Your task to perform on an android device: Add logitech g502 to the cart on bestbuy.com, then select checkout. Image 0: 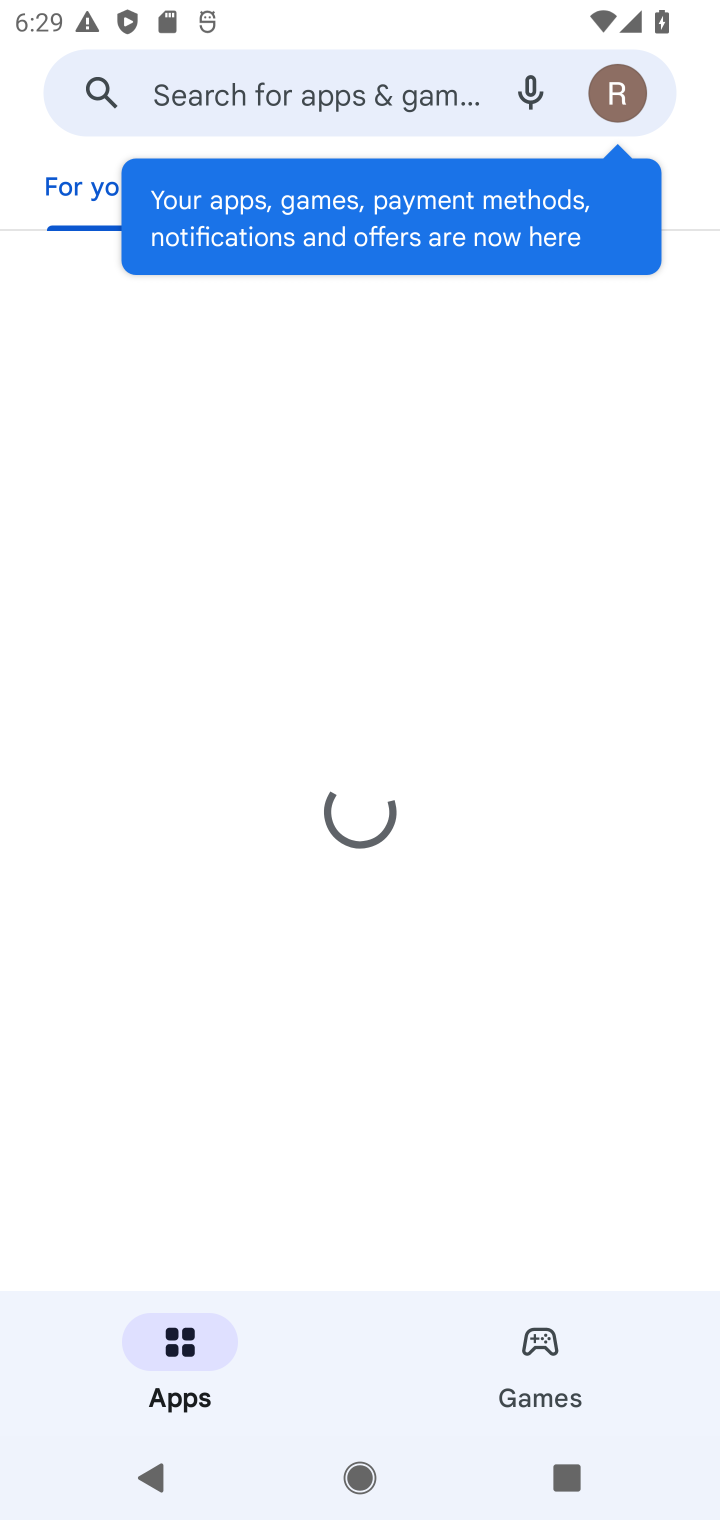
Step 0: press home button
Your task to perform on an android device: Add logitech g502 to the cart on bestbuy.com, then select checkout. Image 1: 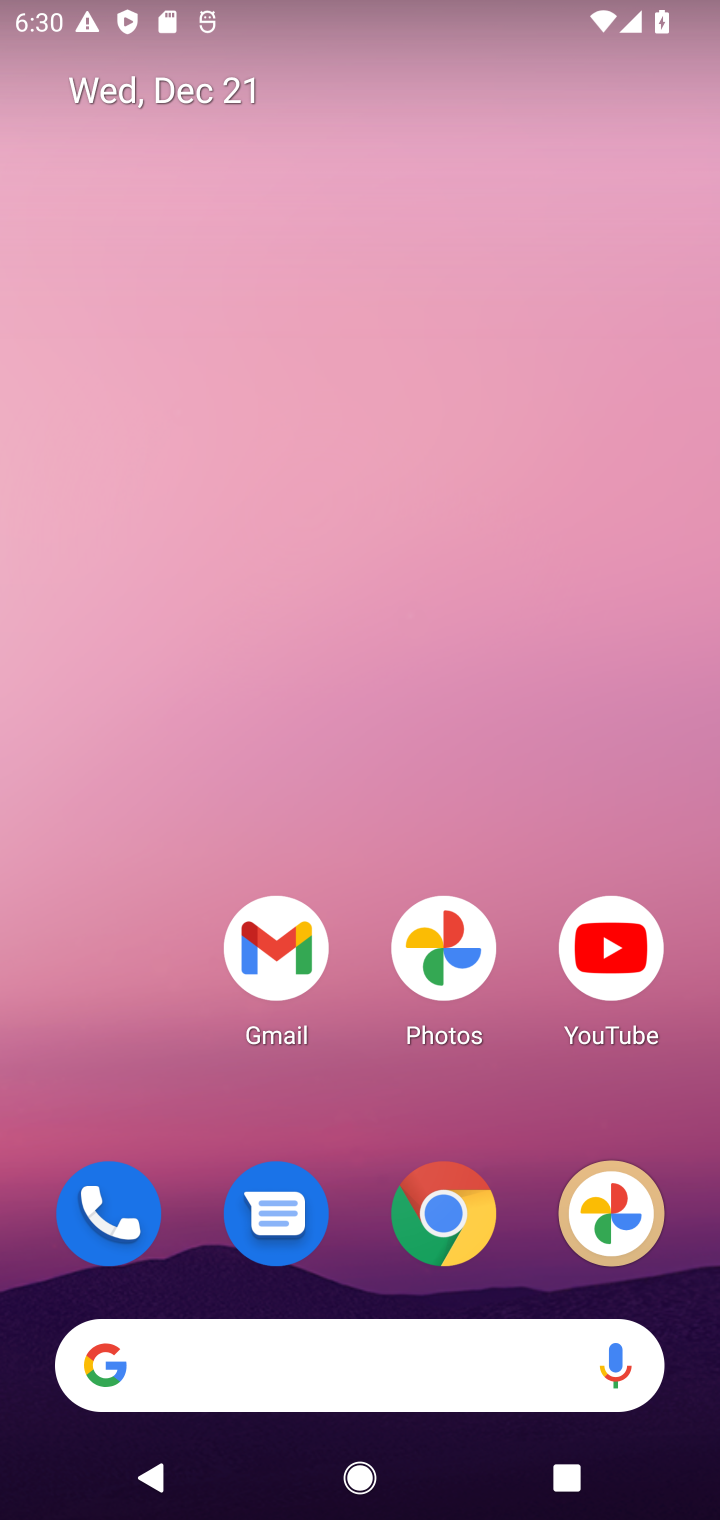
Step 1: click (470, 1252)
Your task to perform on an android device: Add logitech g502 to the cart on bestbuy.com, then select checkout. Image 2: 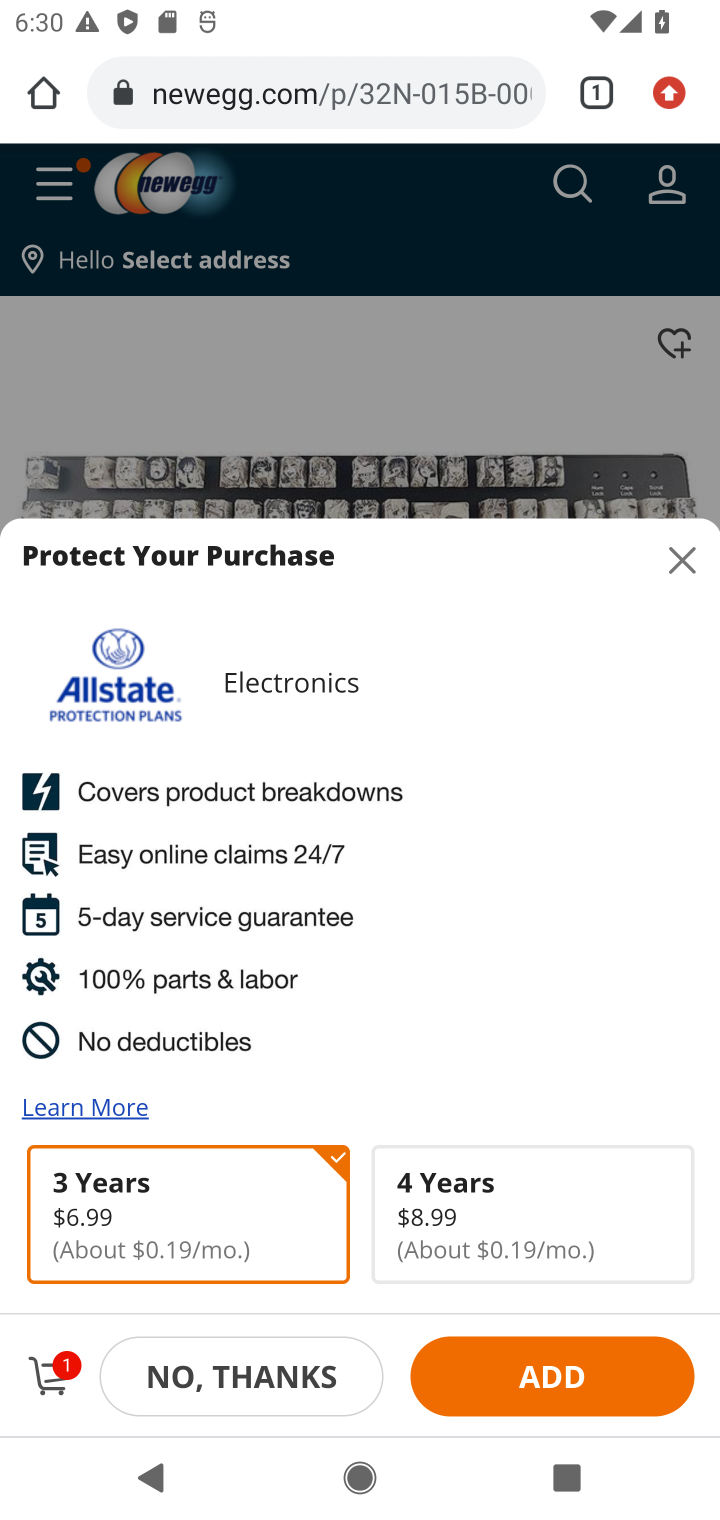
Step 2: click (441, 119)
Your task to perform on an android device: Add logitech g502 to the cart on bestbuy.com, then select checkout. Image 3: 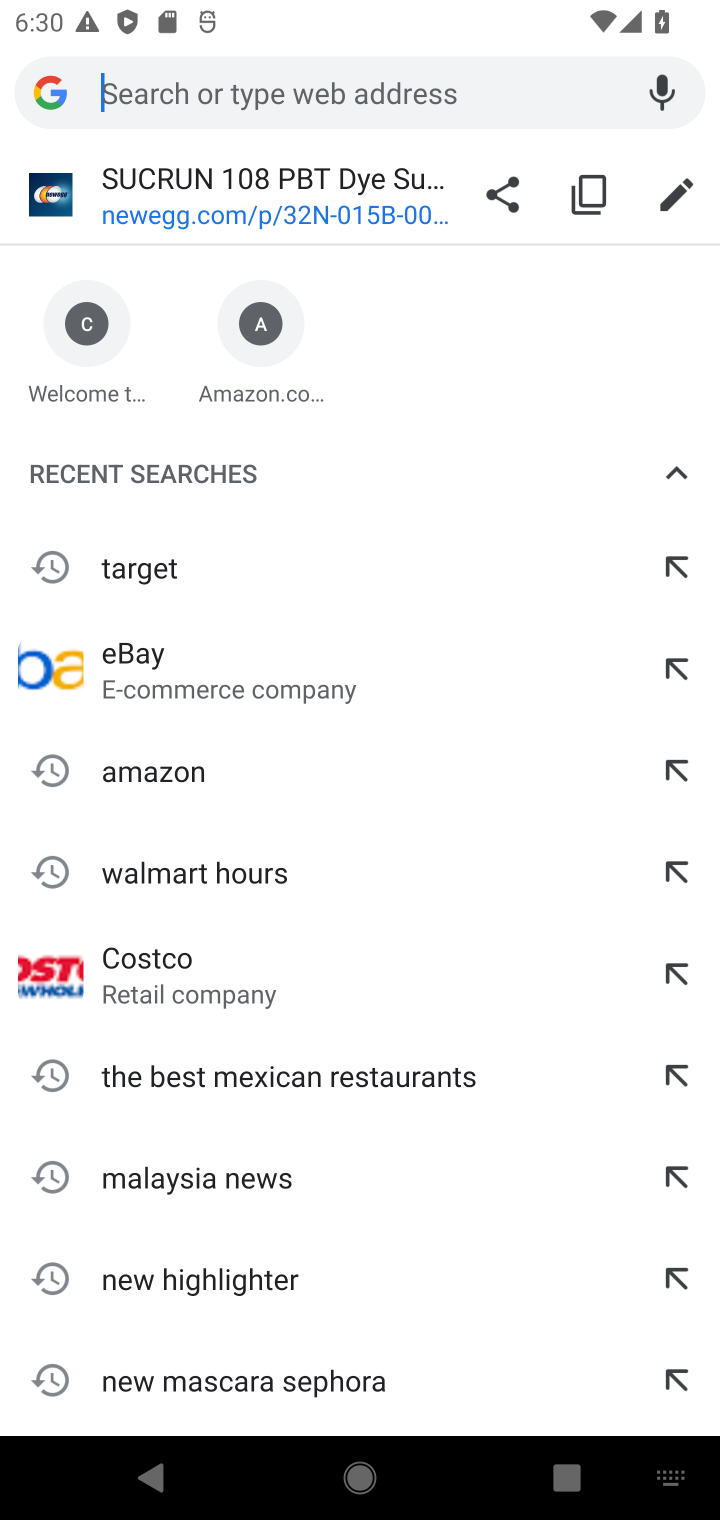
Step 3: type "bestbuy"
Your task to perform on an android device: Add logitech g502 to the cart on bestbuy.com, then select checkout. Image 4: 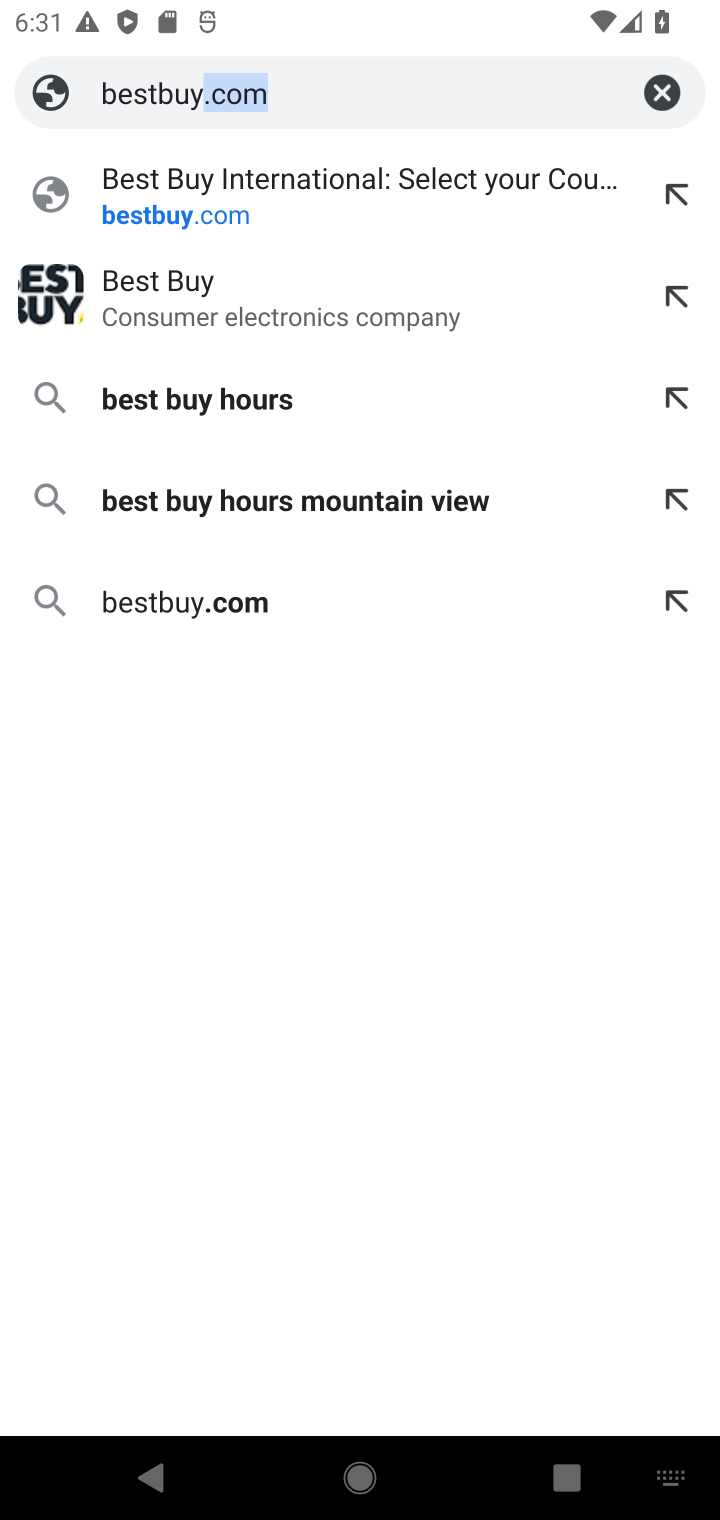
Step 4: click (221, 181)
Your task to perform on an android device: Add logitech g502 to the cart on bestbuy.com, then select checkout. Image 5: 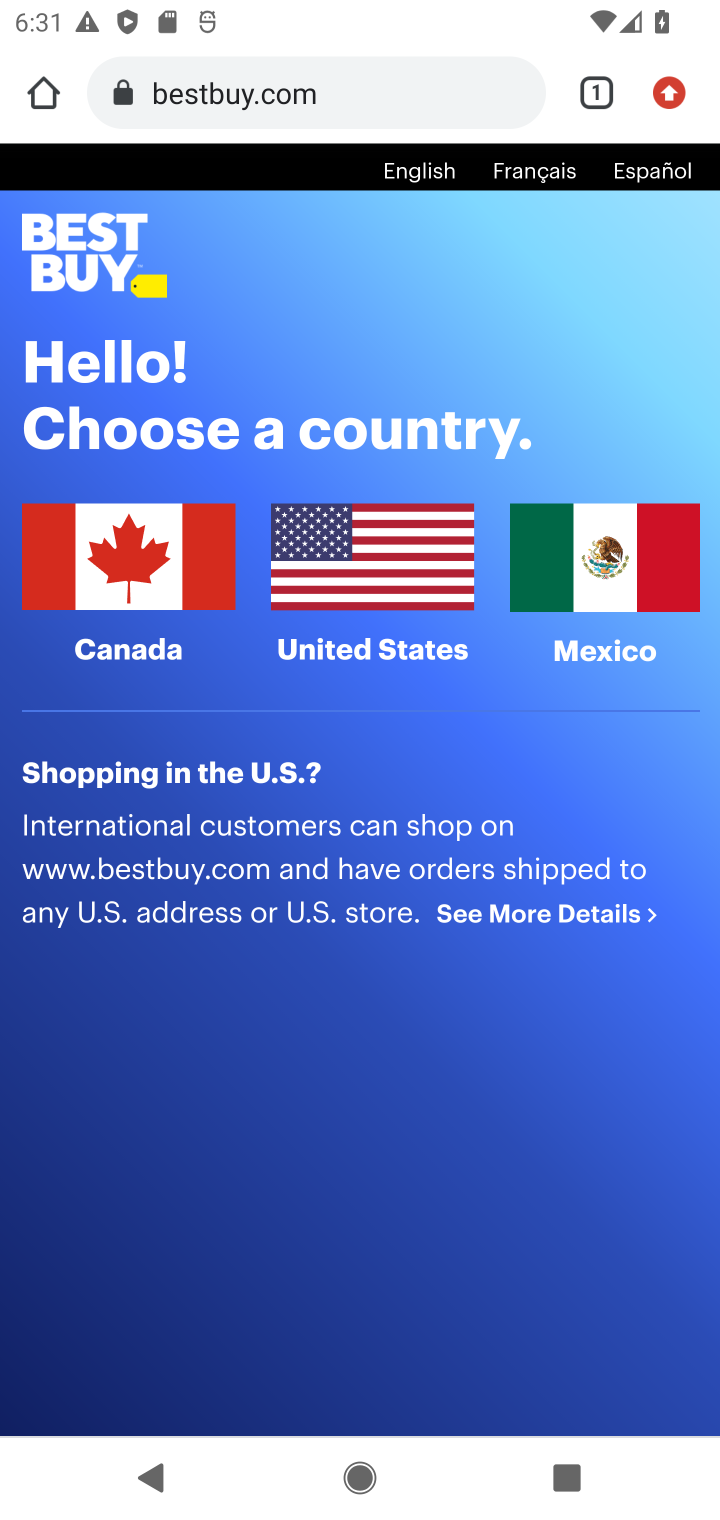
Step 5: click (153, 565)
Your task to perform on an android device: Add logitech g502 to the cart on bestbuy.com, then select checkout. Image 6: 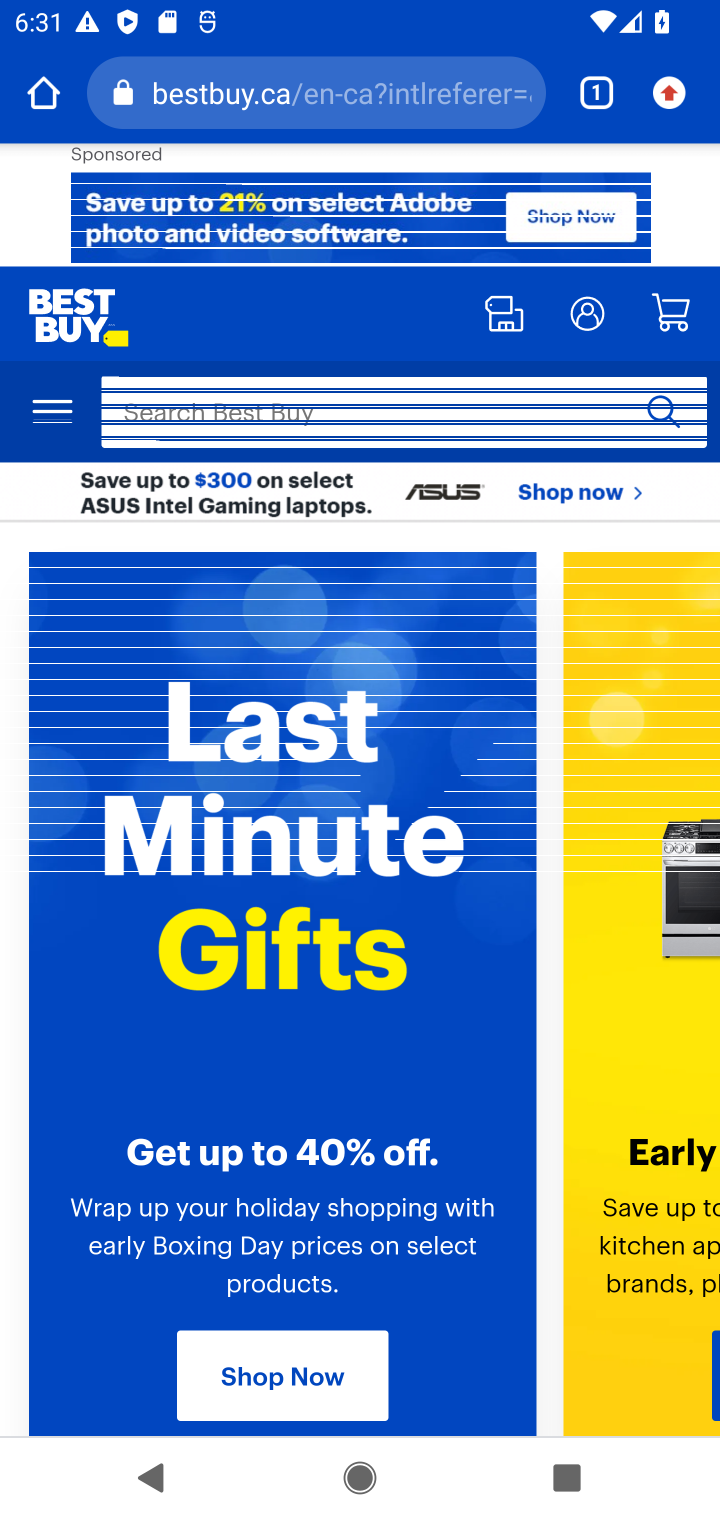
Step 6: click (250, 400)
Your task to perform on an android device: Add logitech g502 to the cart on bestbuy.com, then select checkout. Image 7: 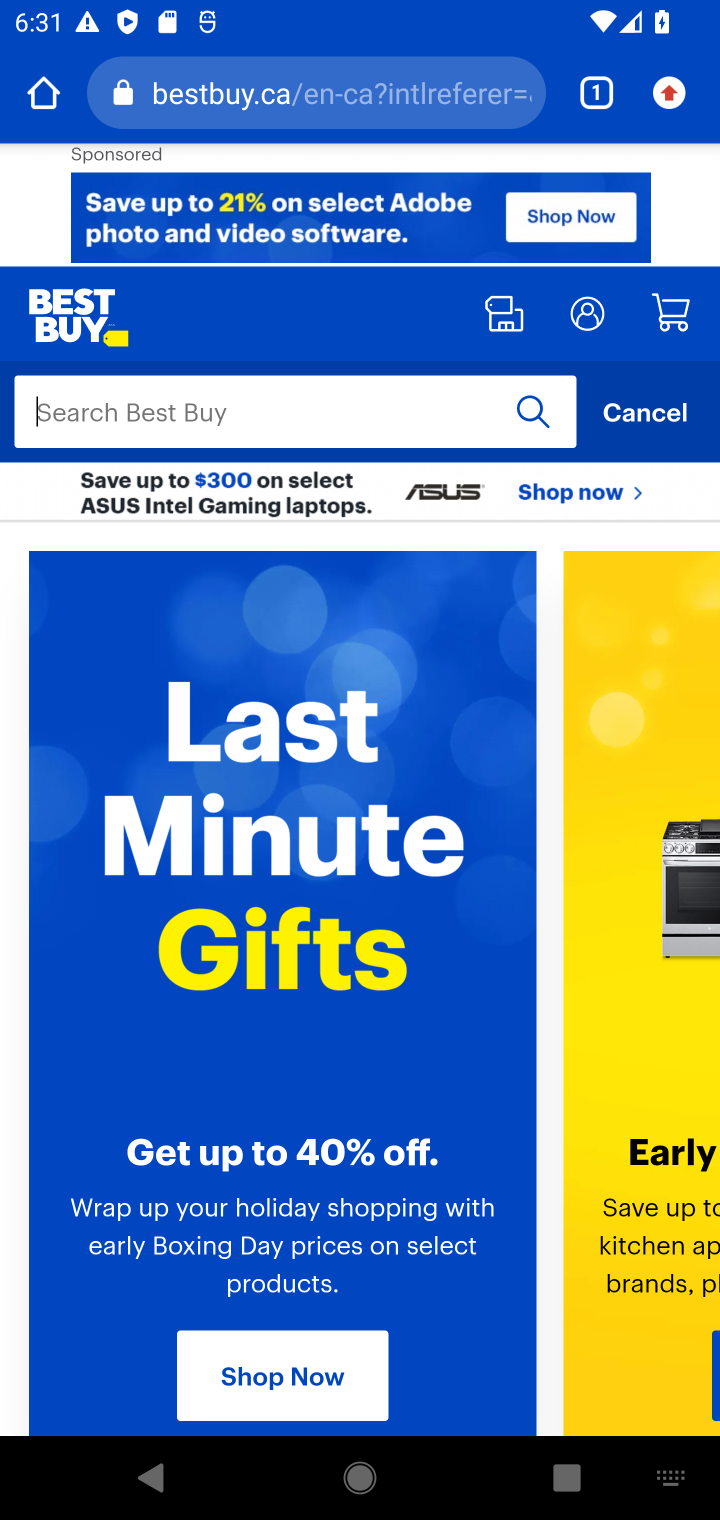
Step 7: type "logitechh g502"
Your task to perform on an android device: Add logitech g502 to the cart on bestbuy.com, then select checkout. Image 8: 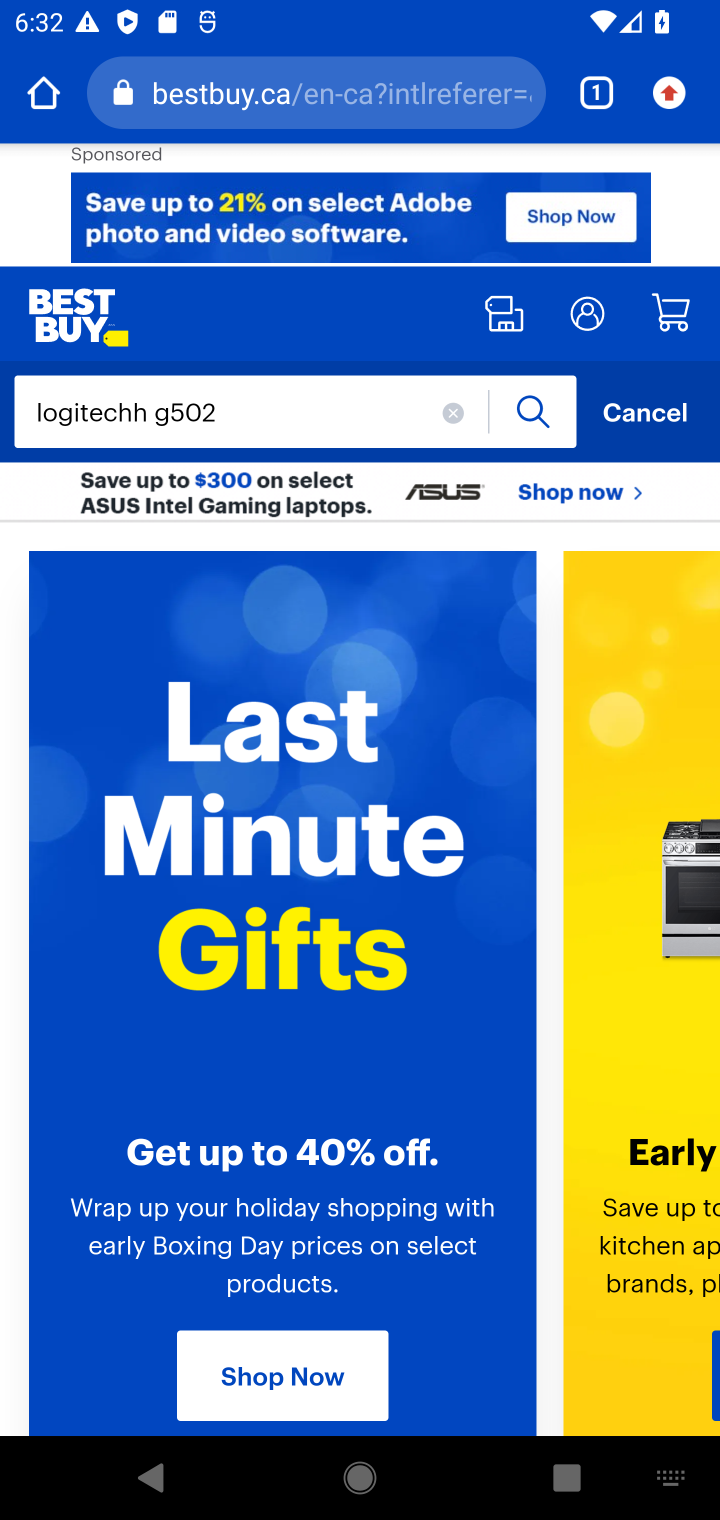
Step 8: click (541, 417)
Your task to perform on an android device: Add logitech g502 to the cart on bestbuy.com, then select checkout. Image 9: 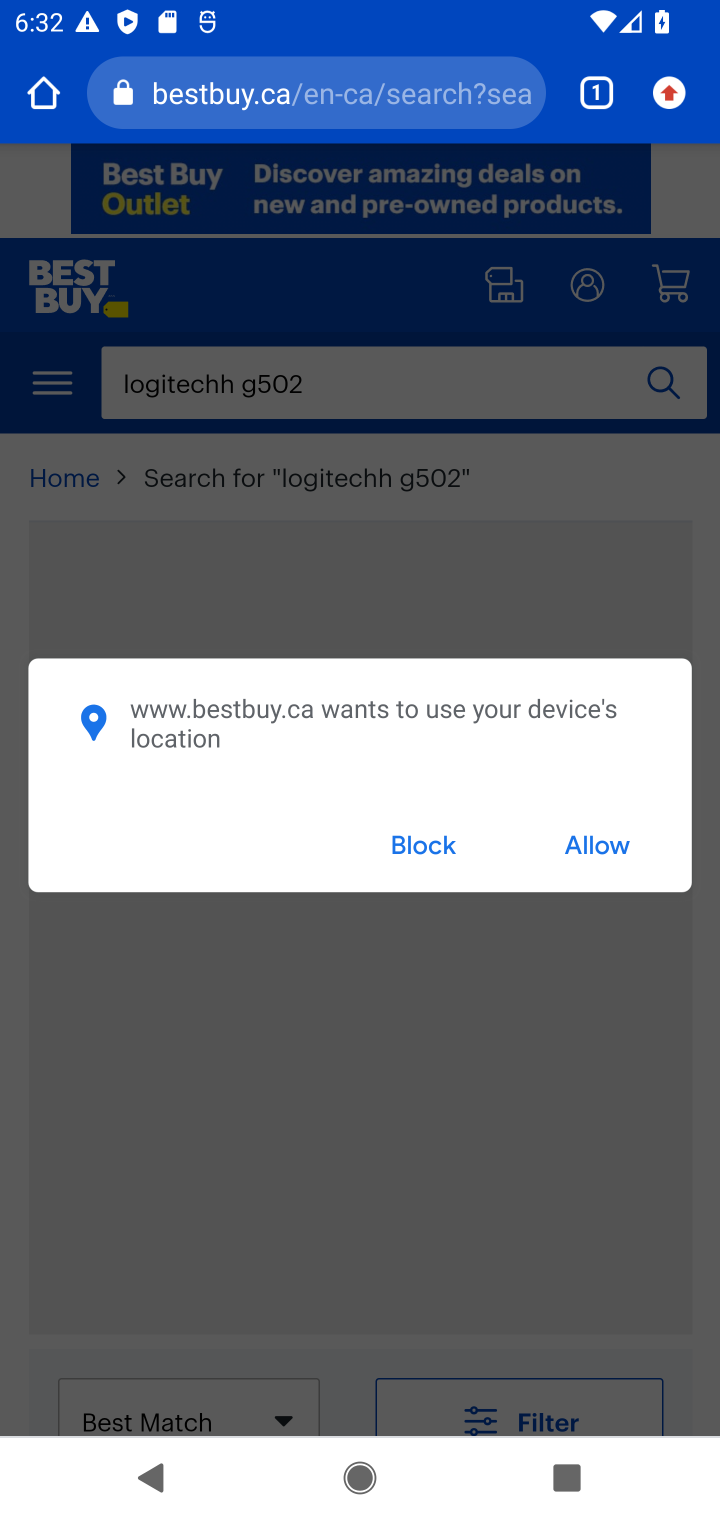
Step 9: click (614, 829)
Your task to perform on an android device: Add logitech g502 to the cart on bestbuy.com, then select checkout. Image 10: 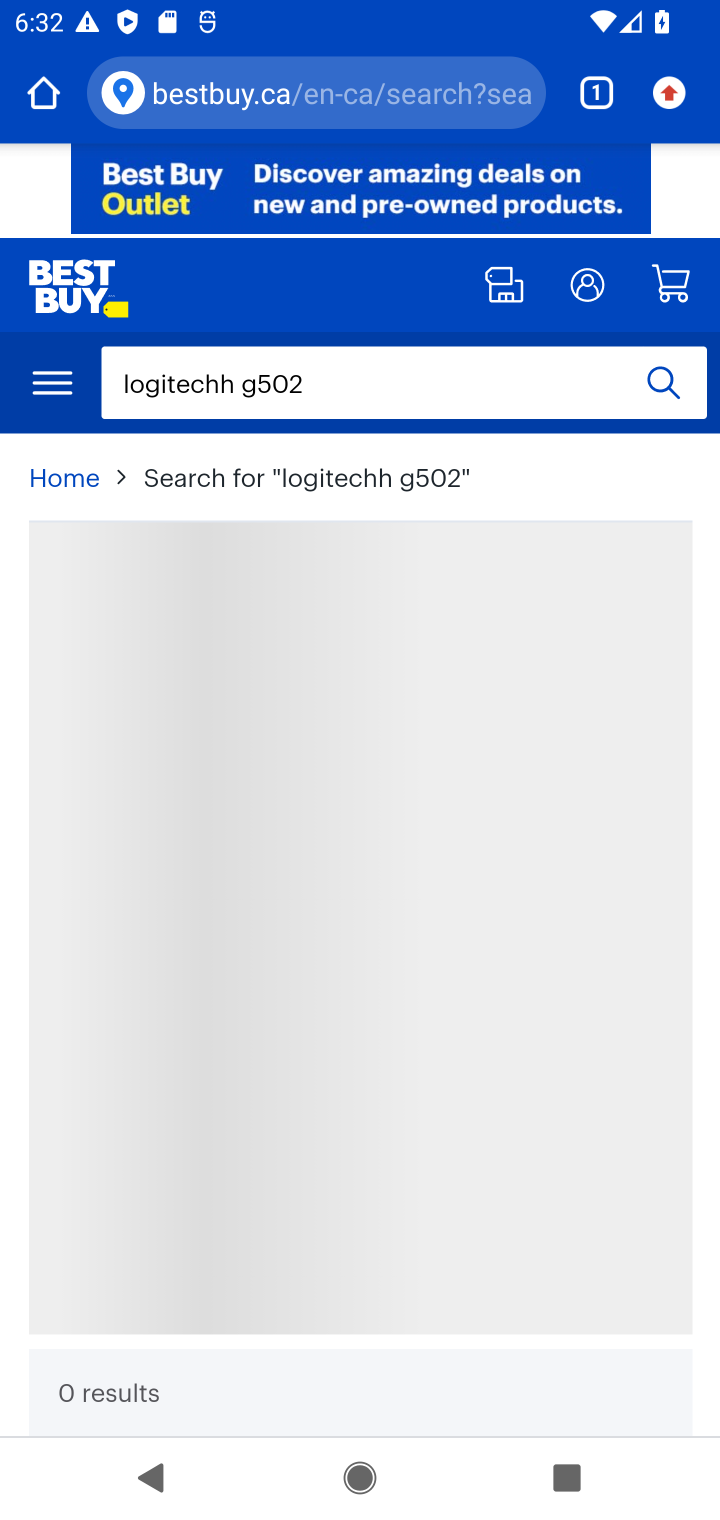
Step 10: task complete